Your task to perform on an android device: check storage Image 0: 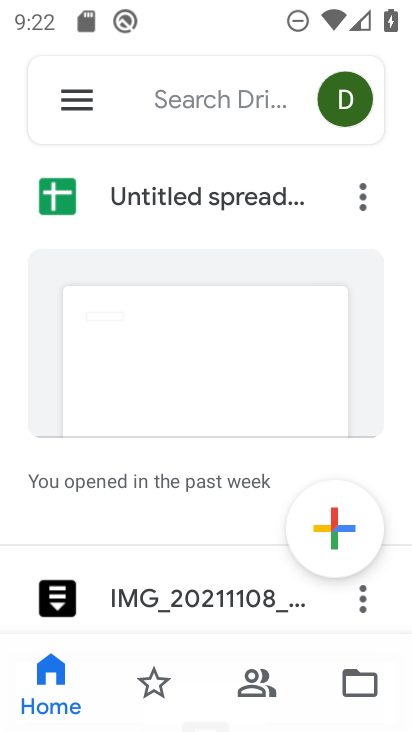
Step 0: press home button
Your task to perform on an android device: check storage Image 1: 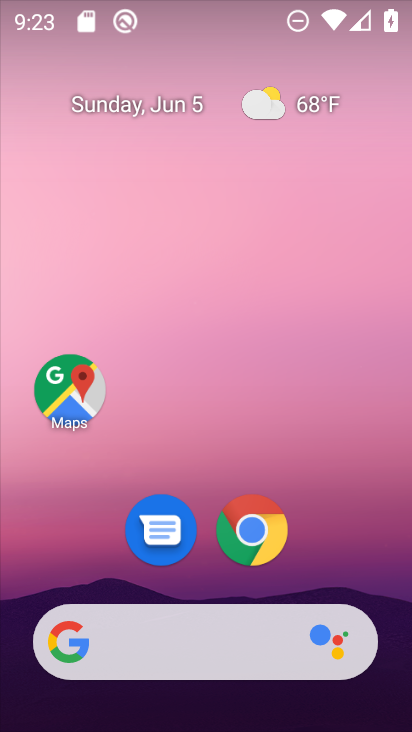
Step 1: drag from (396, 633) to (360, 36)
Your task to perform on an android device: check storage Image 2: 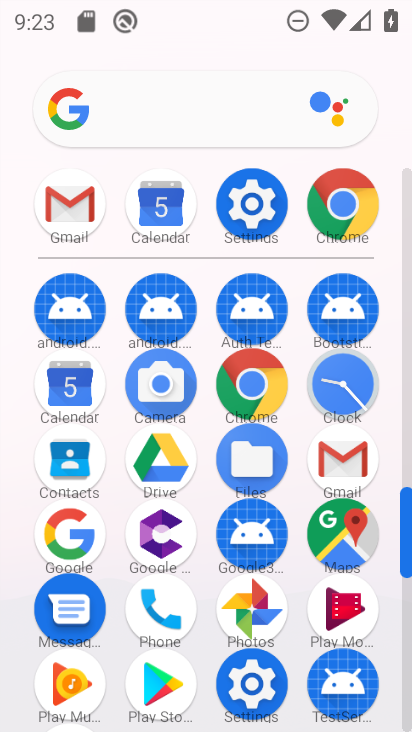
Step 2: click (404, 706)
Your task to perform on an android device: check storage Image 3: 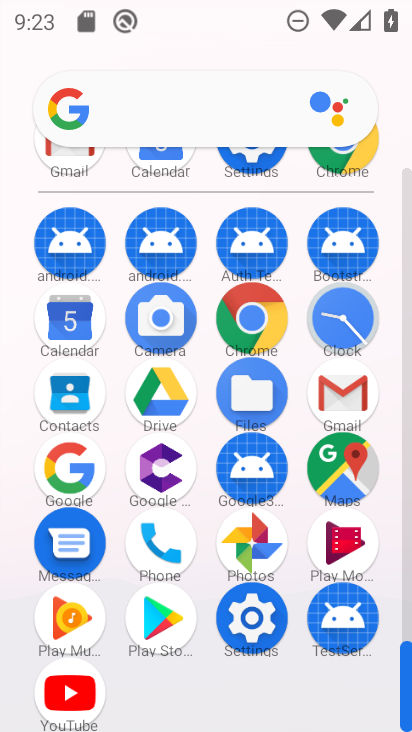
Step 3: click (251, 617)
Your task to perform on an android device: check storage Image 4: 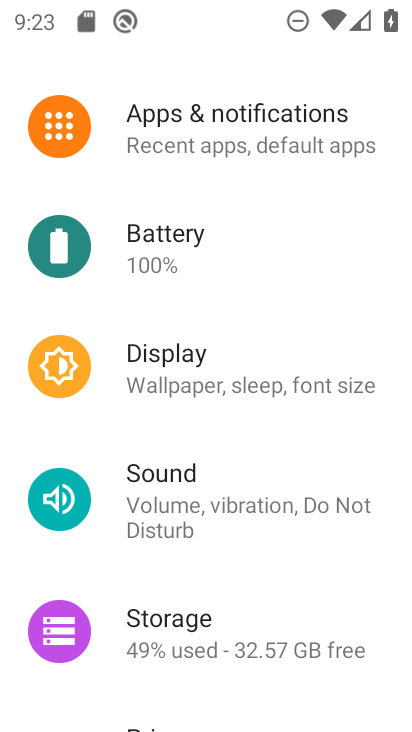
Step 4: click (211, 645)
Your task to perform on an android device: check storage Image 5: 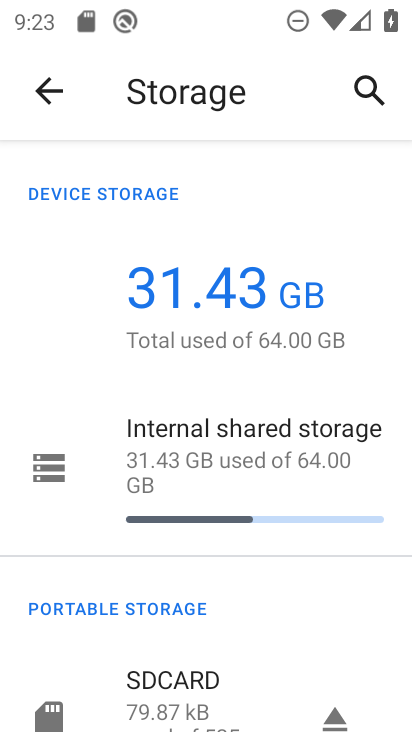
Step 5: task complete